Your task to perform on an android device: What's the weather? Image 0: 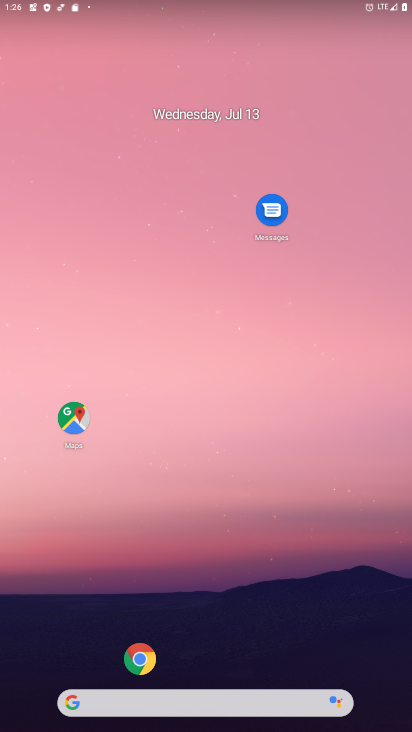
Step 0: click (116, 698)
Your task to perform on an android device: What's the weather? Image 1: 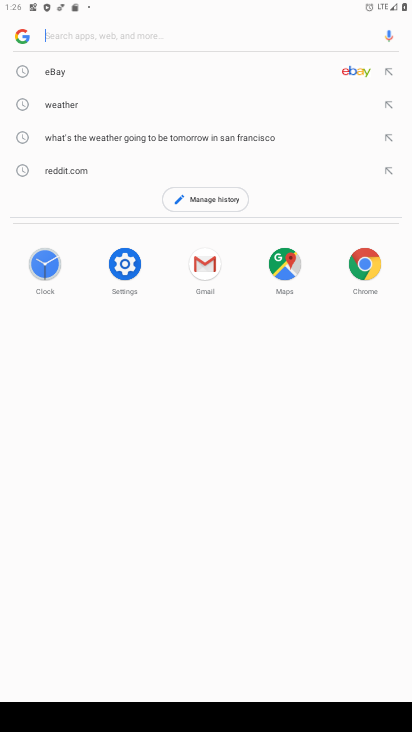
Step 1: type "What's the weather?"
Your task to perform on an android device: What's the weather? Image 2: 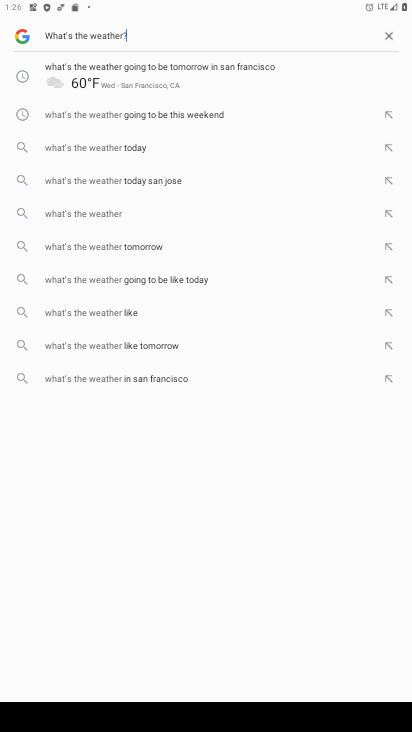
Step 2: type ""
Your task to perform on an android device: What's the weather? Image 3: 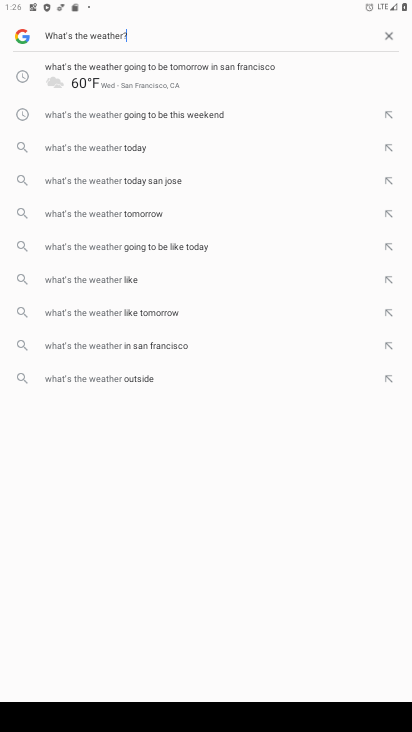
Step 3: task complete